Your task to perform on an android device: turn on javascript in the chrome app Image 0: 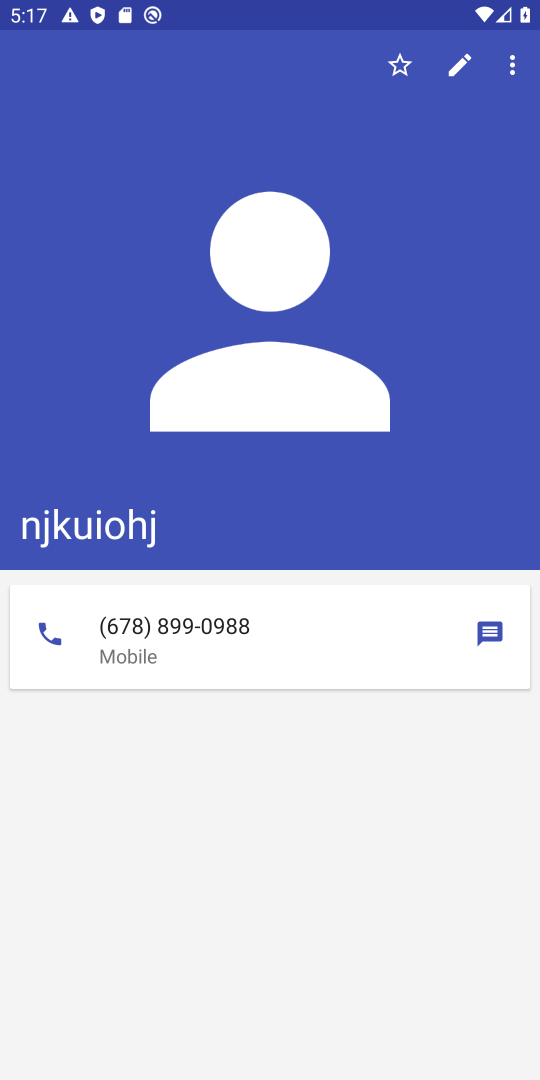
Step 0: press home button
Your task to perform on an android device: turn on javascript in the chrome app Image 1: 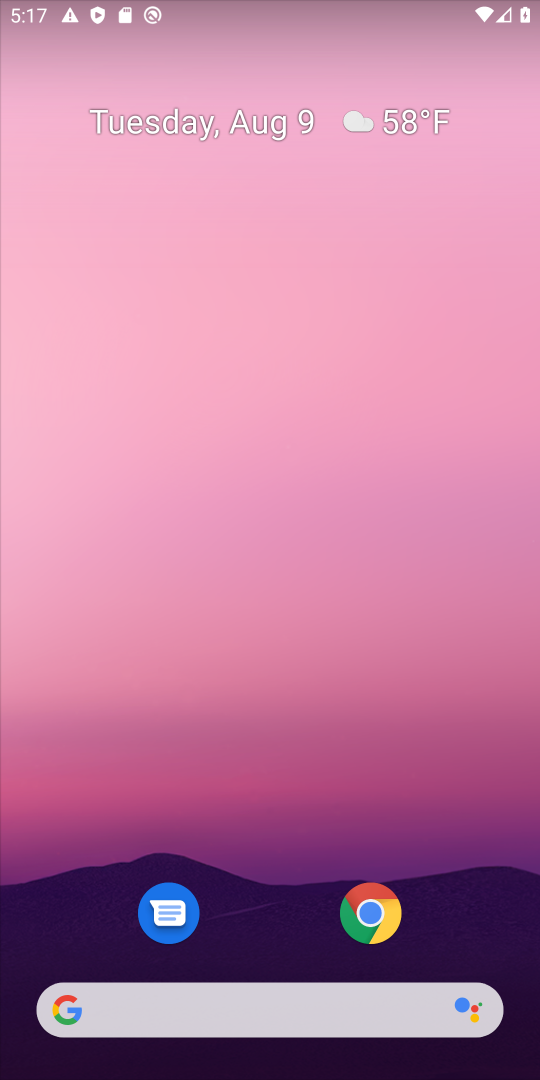
Step 1: click (382, 906)
Your task to perform on an android device: turn on javascript in the chrome app Image 2: 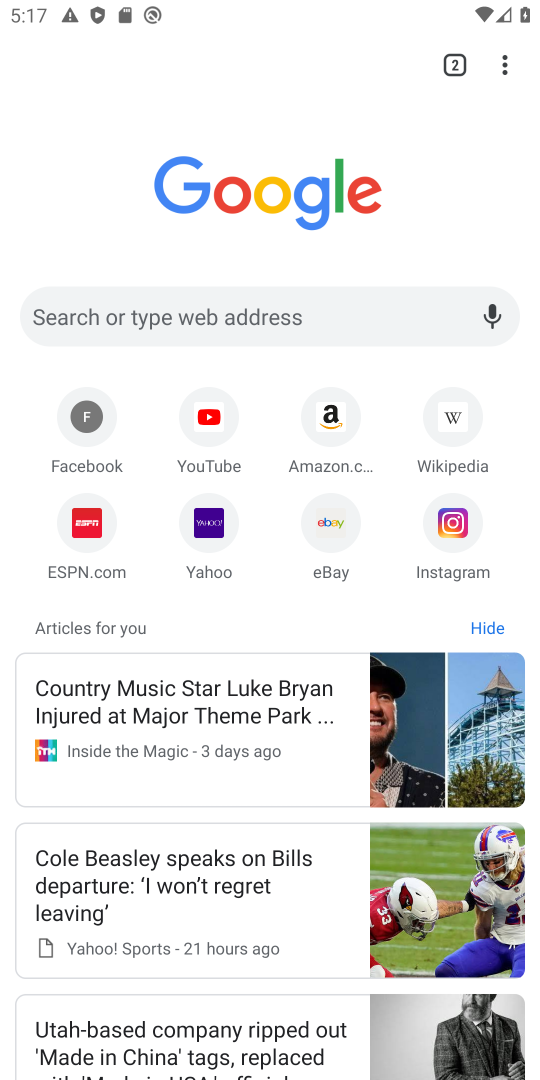
Step 2: click (508, 72)
Your task to perform on an android device: turn on javascript in the chrome app Image 3: 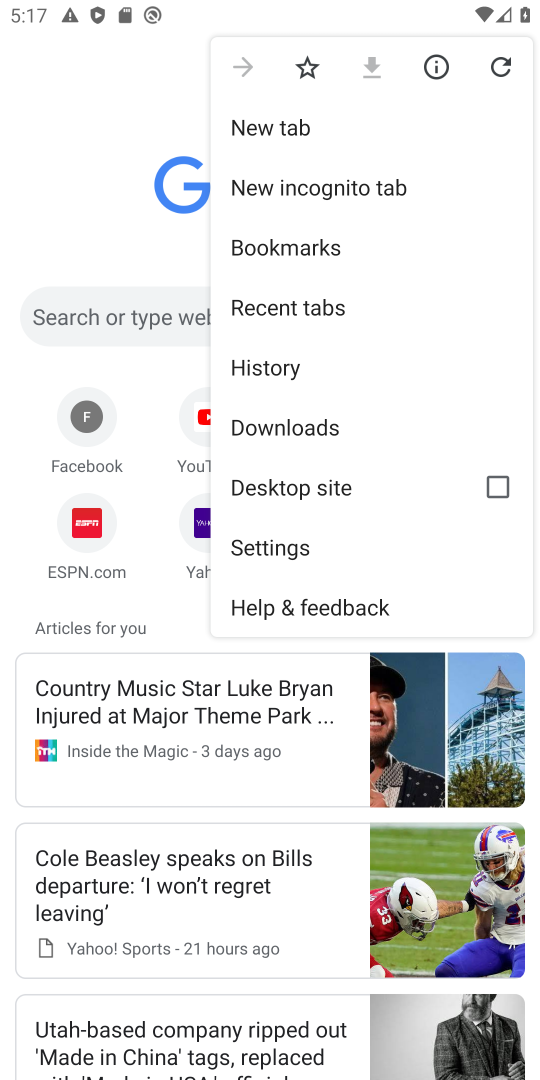
Step 3: click (272, 549)
Your task to perform on an android device: turn on javascript in the chrome app Image 4: 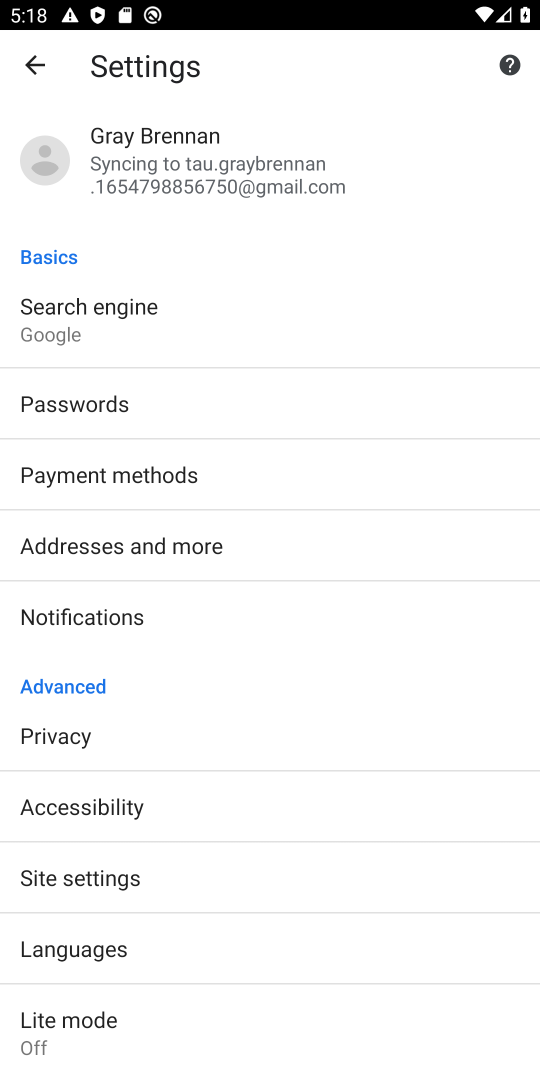
Step 4: click (117, 901)
Your task to perform on an android device: turn on javascript in the chrome app Image 5: 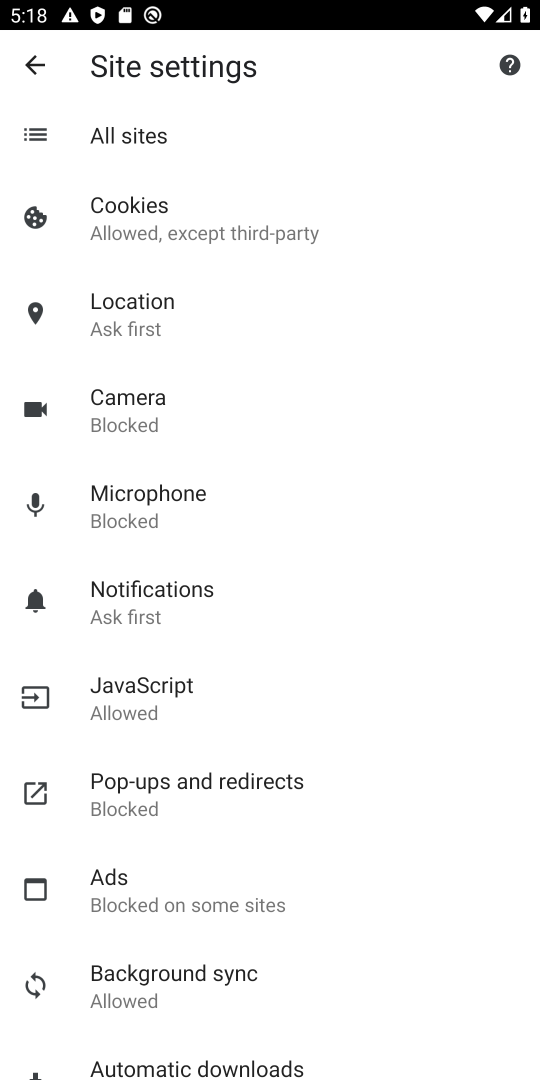
Step 5: click (133, 680)
Your task to perform on an android device: turn on javascript in the chrome app Image 6: 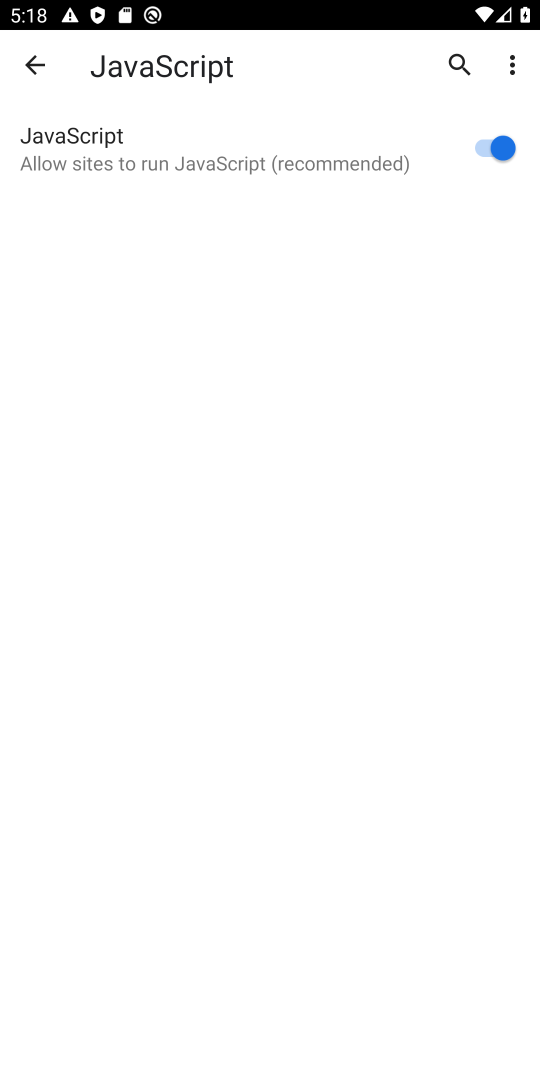
Step 6: task complete